Your task to perform on an android device: Show me the alarms in the clock app Image 0: 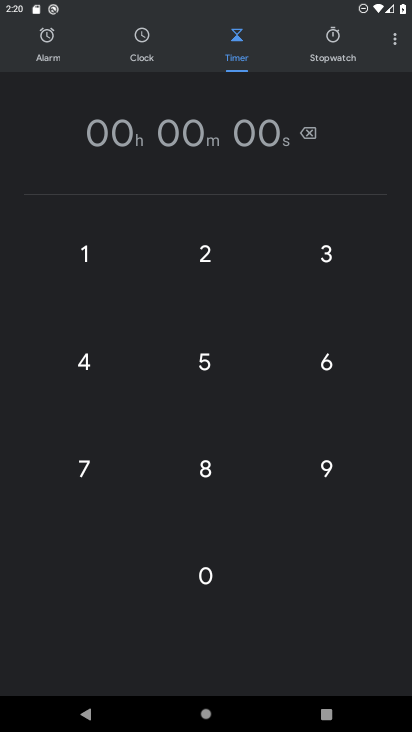
Step 0: click (52, 63)
Your task to perform on an android device: Show me the alarms in the clock app Image 1: 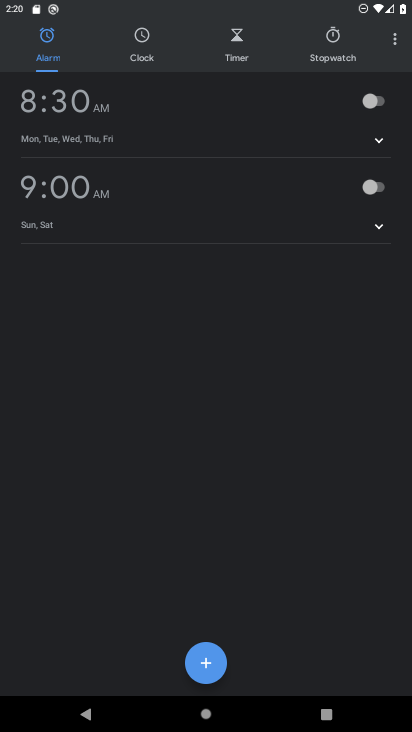
Step 1: click (365, 111)
Your task to perform on an android device: Show me the alarms in the clock app Image 2: 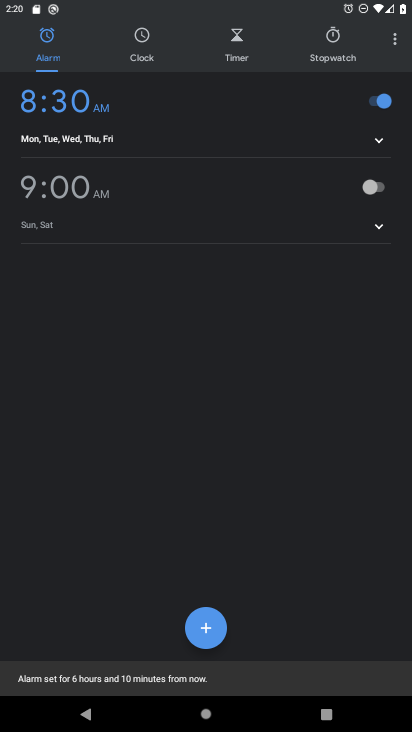
Step 2: task complete